Your task to perform on an android device: turn off smart reply in the gmail app Image 0: 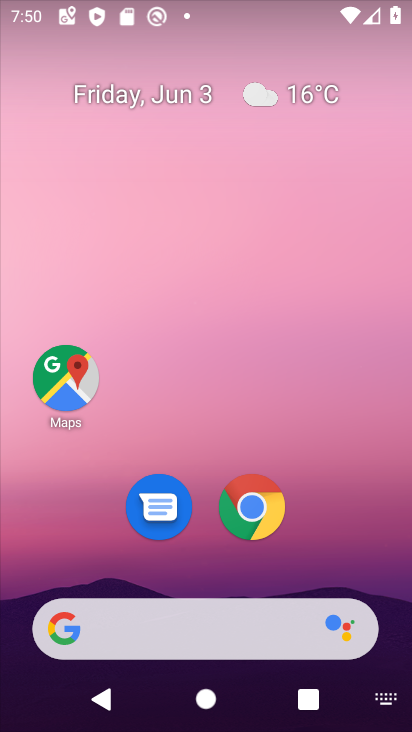
Step 0: drag from (347, 439) to (213, 37)
Your task to perform on an android device: turn off smart reply in the gmail app Image 1: 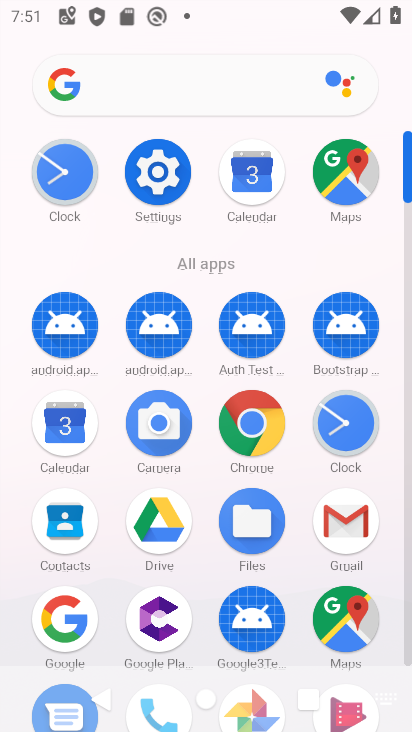
Step 1: click (170, 179)
Your task to perform on an android device: turn off smart reply in the gmail app Image 2: 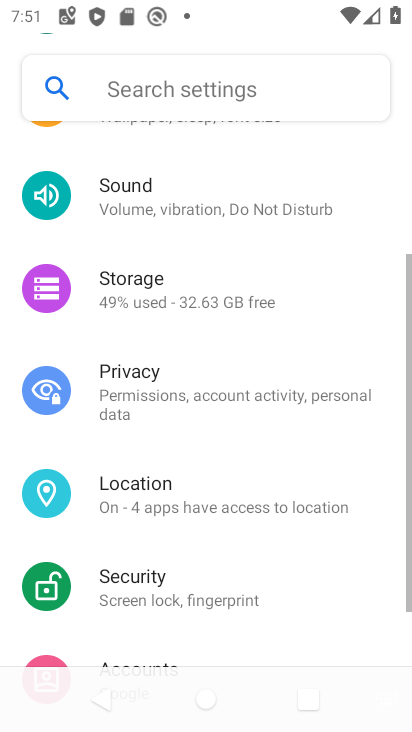
Step 2: press back button
Your task to perform on an android device: turn off smart reply in the gmail app Image 3: 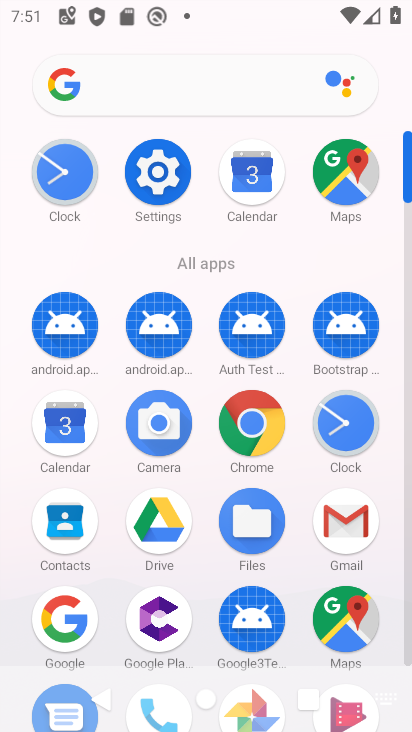
Step 3: click (336, 528)
Your task to perform on an android device: turn off smart reply in the gmail app Image 4: 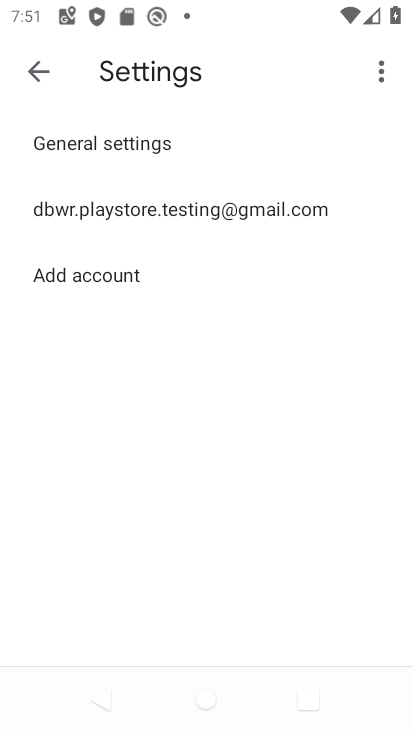
Step 4: click (162, 195)
Your task to perform on an android device: turn off smart reply in the gmail app Image 5: 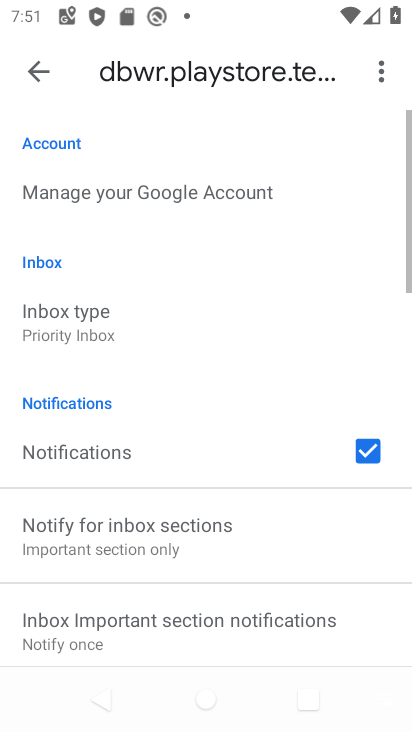
Step 5: drag from (235, 501) to (218, 69)
Your task to perform on an android device: turn off smart reply in the gmail app Image 6: 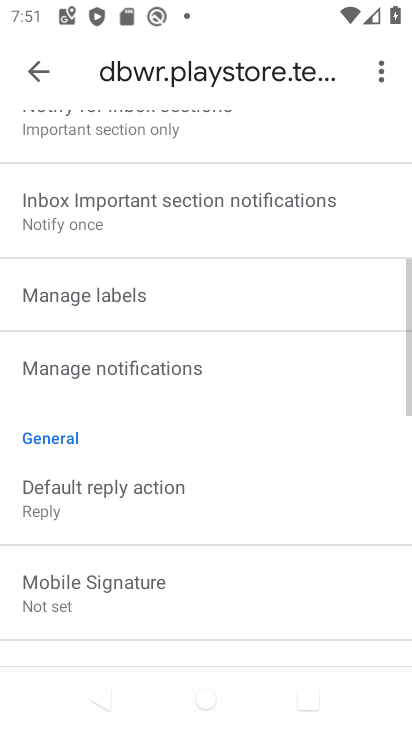
Step 6: drag from (264, 603) to (246, 71)
Your task to perform on an android device: turn off smart reply in the gmail app Image 7: 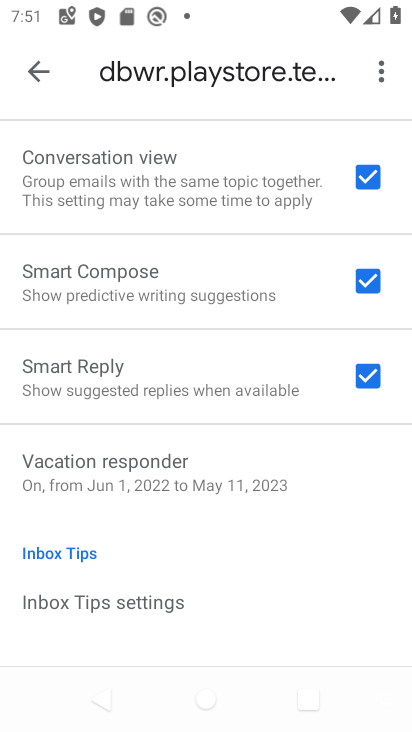
Step 7: click (353, 383)
Your task to perform on an android device: turn off smart reply in the gmail app Image 8: 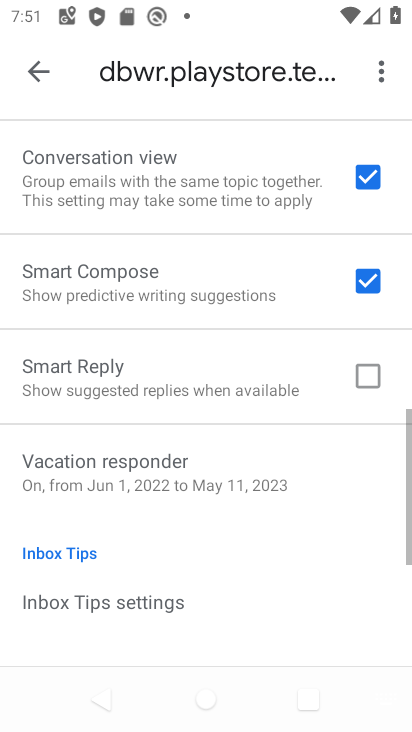
Step 8: task complete